Your task to perform on an android device: What's on my calendar today? Image 0: 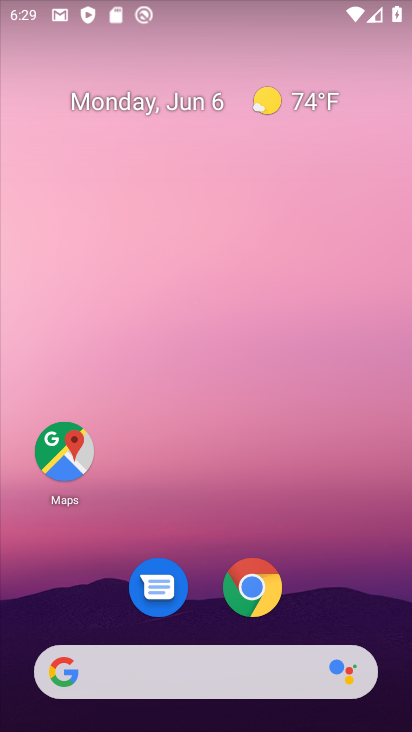
Step 0: drag from (338, 599) to (249, 0)
Your task to perform on an android device: What's on my calendar today? Image 1: 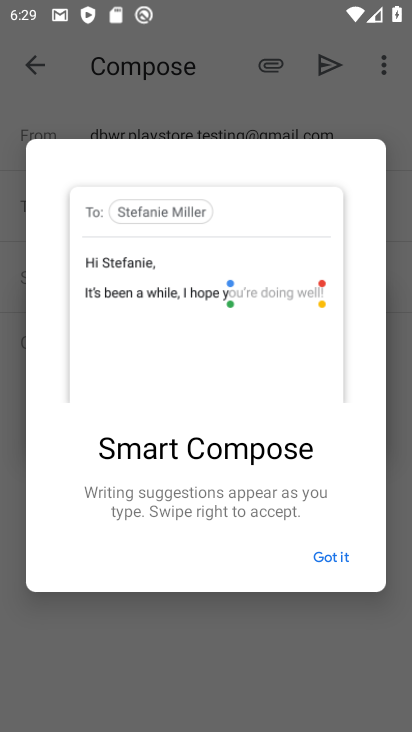
Step 1: click (62, 441)
Your task to perform on an android device: What's on my calendar today? Image 2: 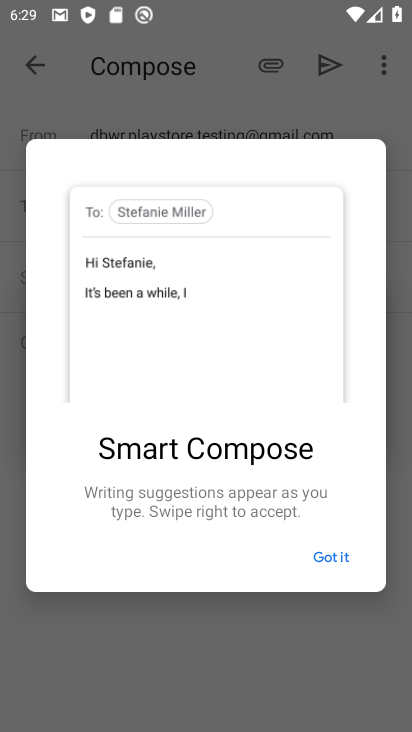
Step 2: press home button
Your task to perform on an android device: What's on my calendar today? Image 3: 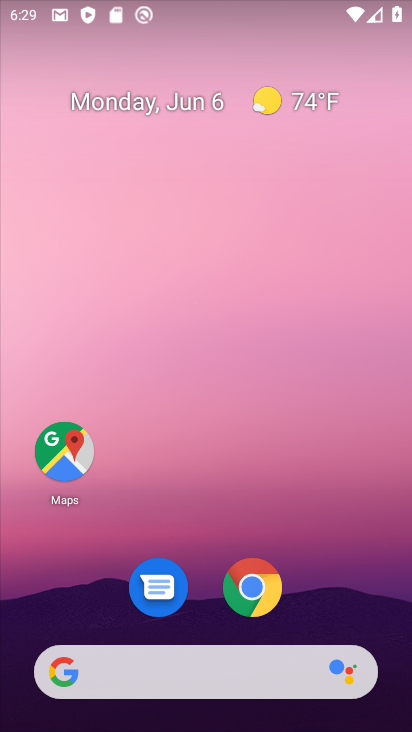
Step 3: drag from (399, 668) to (286, 45)
Your task to perform on an android device: What's on my calendar today? Image 4: 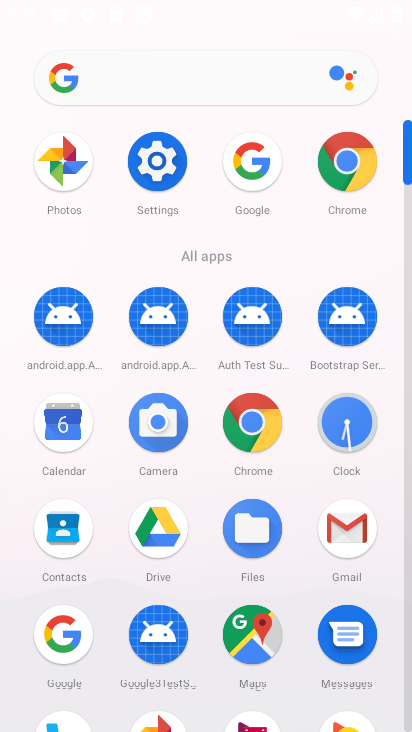
Step 4: click (51, 384)
Your task to perform on an android device: What's on my calendar today? Image 5: 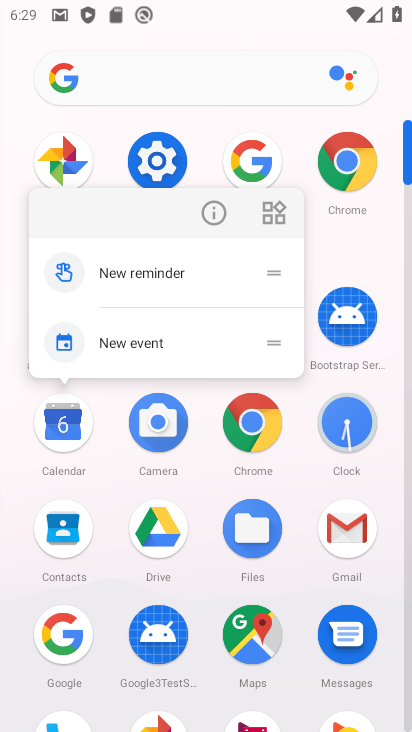
Step 5: click (53, 416)
Your task to perform on an android device: What's on my calendar today? Image 6: 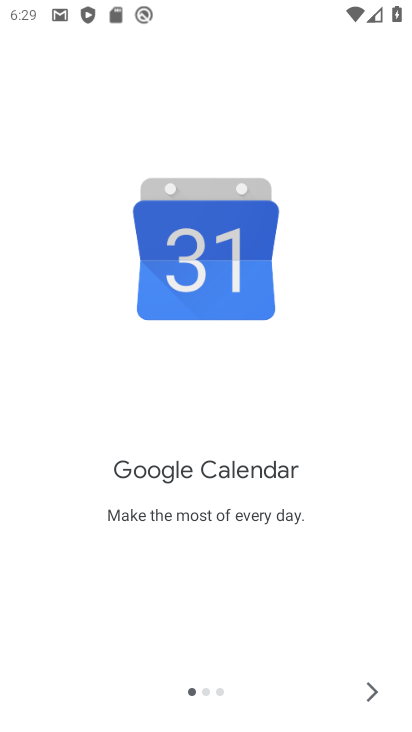
Step 6: click (373, 697)
Your task to perform on an android device: What's on my calendar today? Image 7: 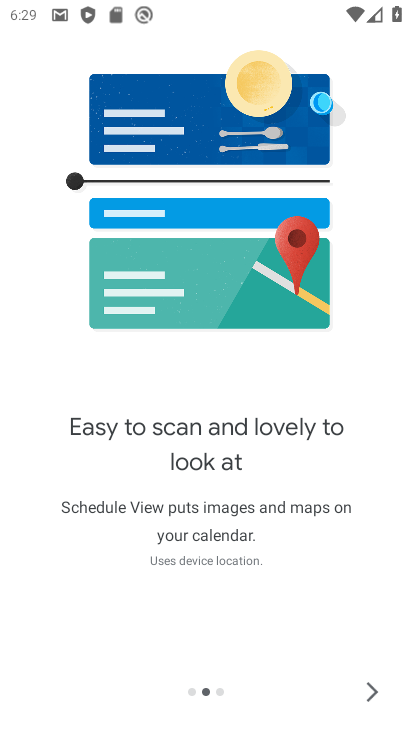
Step 7: click (373, 697)
Your task to perform on an android device: What's on my calendar today? Image 8: 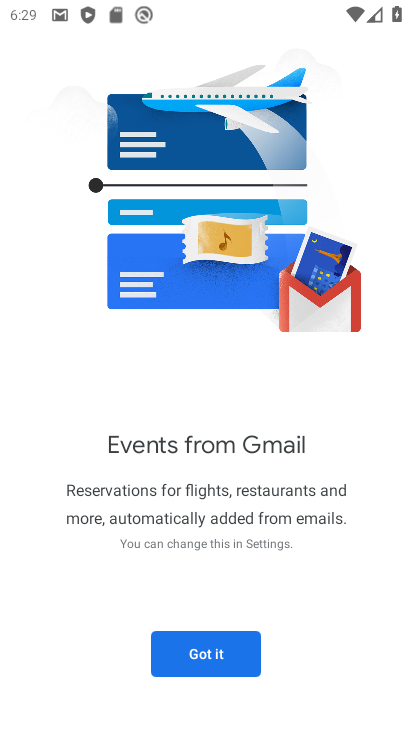
Step 8: click (373, 697)
Your task to perform on an android device: What's on my calendar today? Image 9: 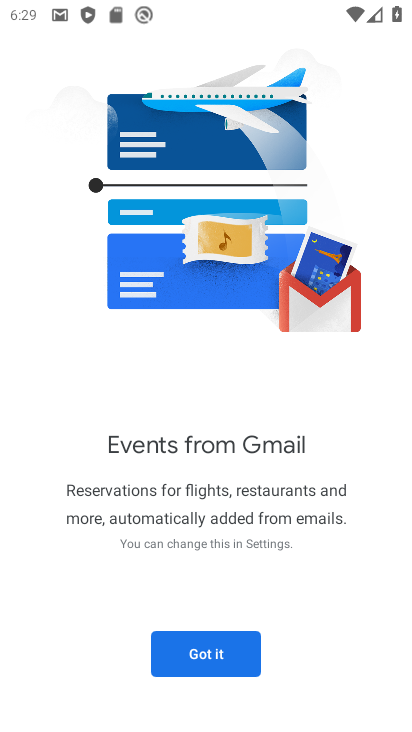
Step 9: click (178, 668)
Your task to perform on an android device: What's on my calendar today? Image 10: 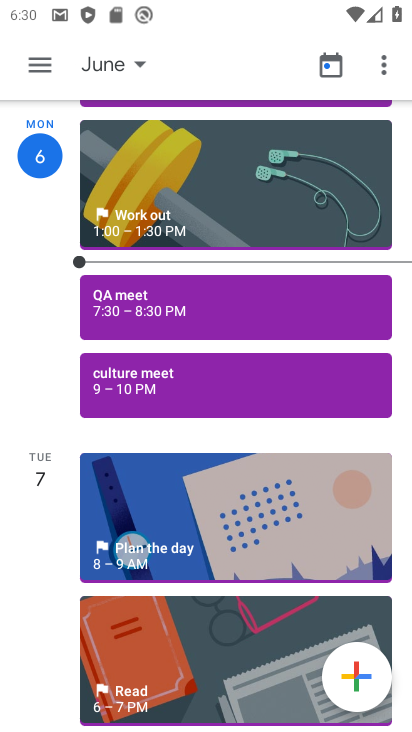
Step 10: click (116, 71)
Your task to perform on an android device: What's on my calendar today? Image 11: 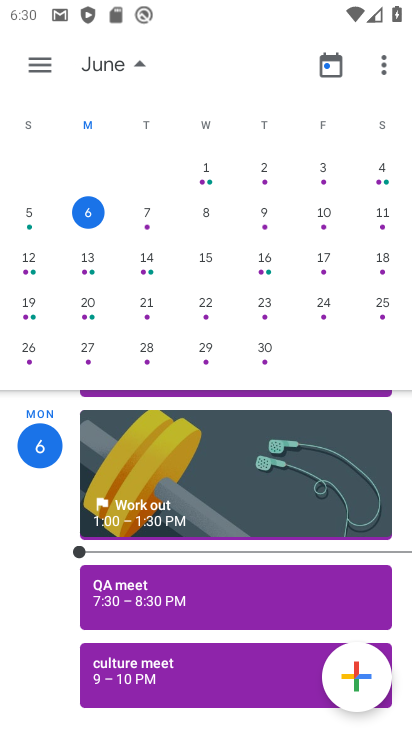
Step 11: click (147, 214)
Your task to perform on an android device: What's on my calendar today? Image 12: 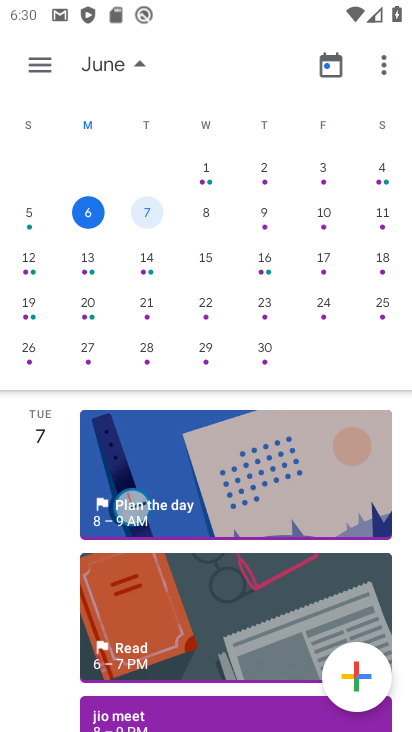
Step 12: click (191, 460)
Your task to perform on an android device: What's on my calendar today? Image 13: 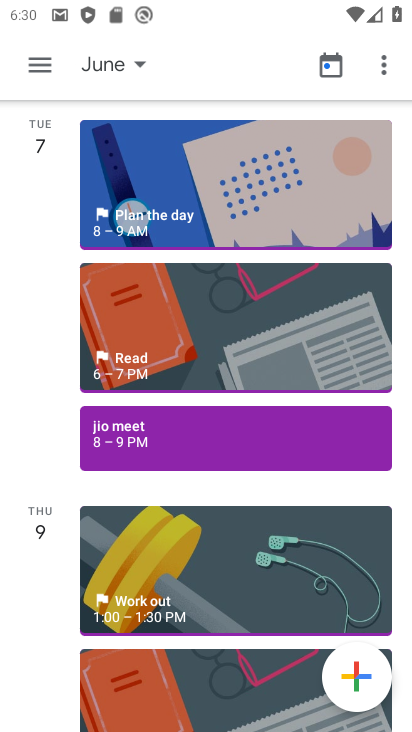
Step 13: click (229, 198)
Your task to perform on an android device: What's on my calendar today? Image 14: 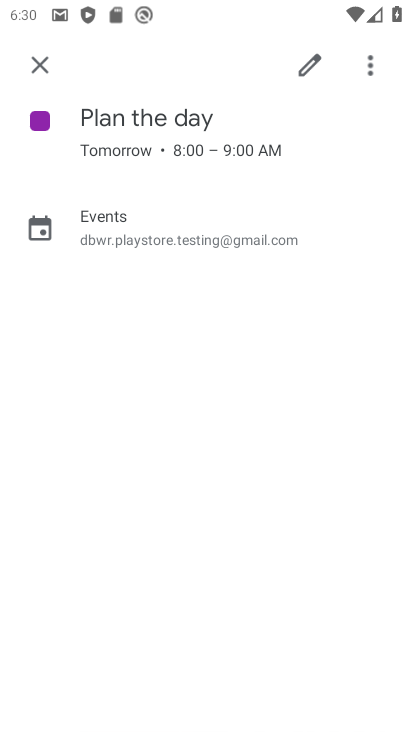
Step 14: task complete